Your task to perform on an android device: turn off notifications settings in the gmail app Image 0: 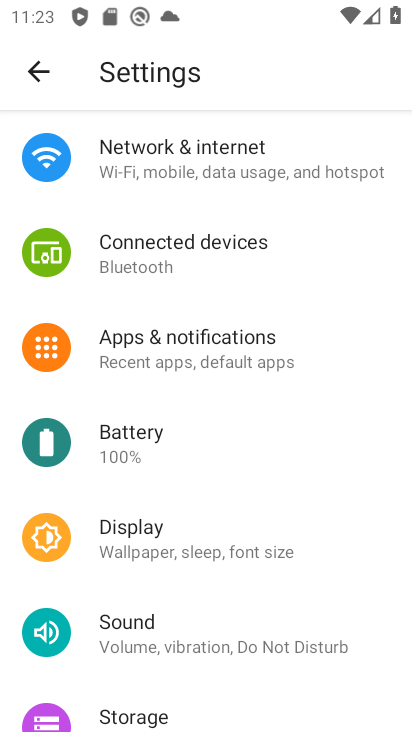
Step 0: press home button
Your task to perform on an android device: turn off notifications settings in the gmail app Image 1: 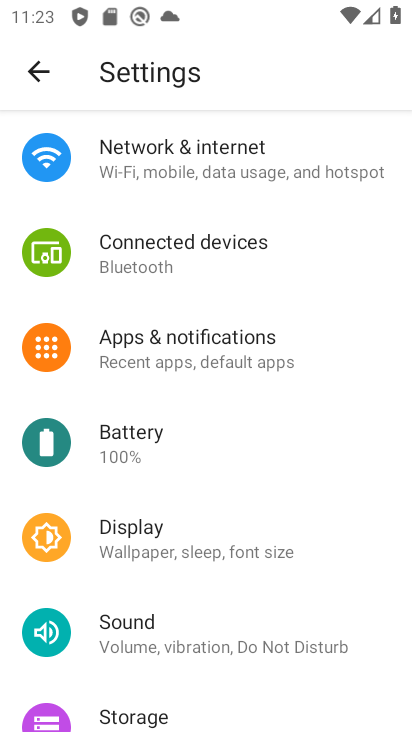
Step 1: press home button
Your task to perform on an android device: turn off notifications settings in the gmail app Image 2: 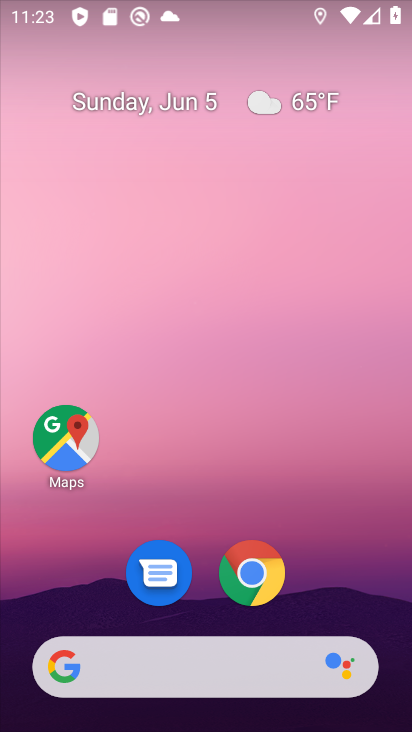
Step 2: drag from (212, 617) to (253, 1)
Your task to perform on an android device: turn off notifications settings in the gmail app Image 3: 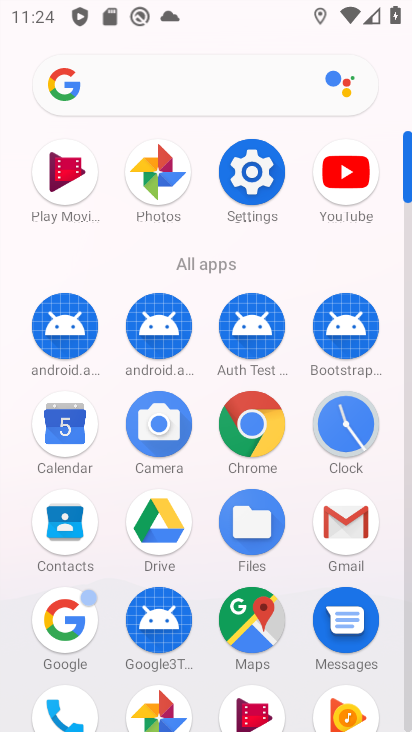
Step 3: click (347, 525)
Your task to perform on an android device: turn off notifications settings in the gmail app Image 4: 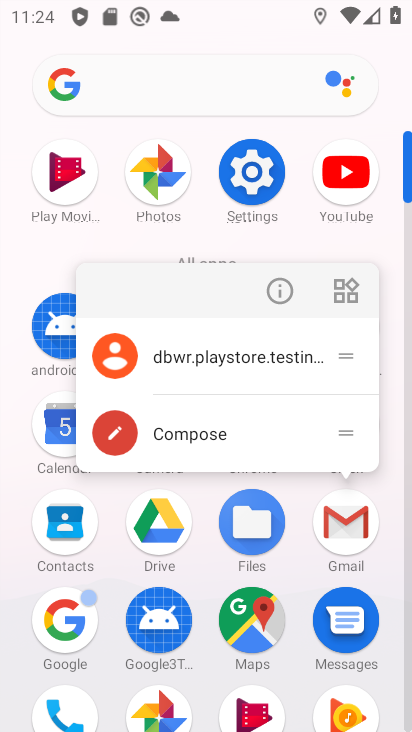
Step 4: click (347, 525)
Your task to perform on an android device: turn off notifications settings in the gmail app Image 5: 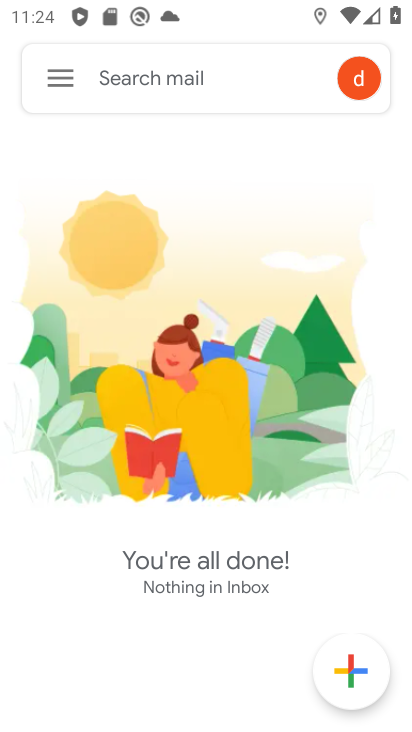
Step 5: click (63, 68)
Your task to perform on an android device: turn off notifications settings in the gmail app Image 6: 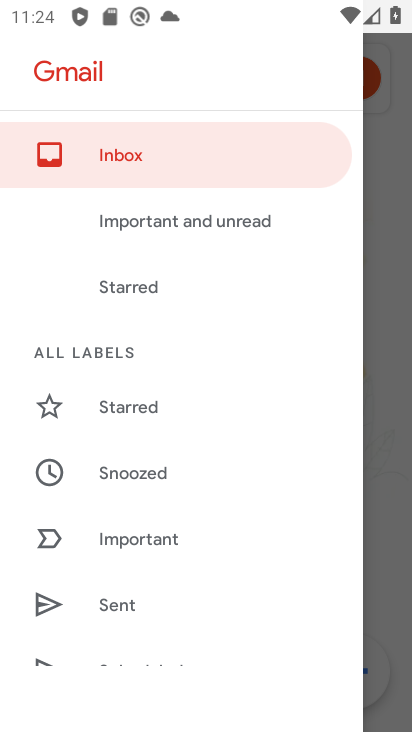
Step 6: drag from (169, 652) to (220, 97)
Your task to perform on an android device: turn off notifications settings in the gmail app Image 7: 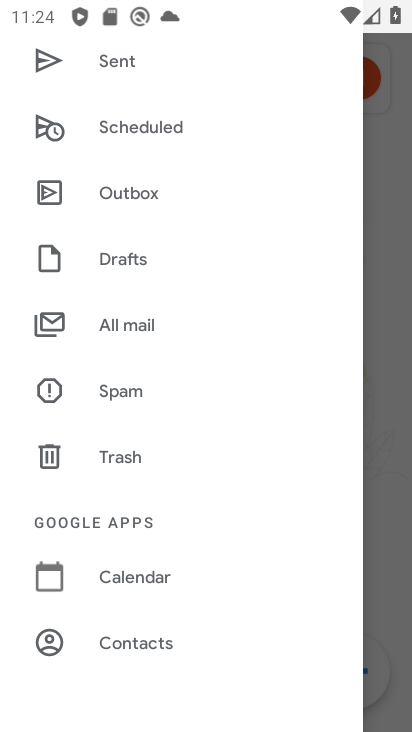
Step 7: drag from (192, 630) to (214, 73)
Your task to perform on an android device: turn off notifications settings in the gmail app Image 8: 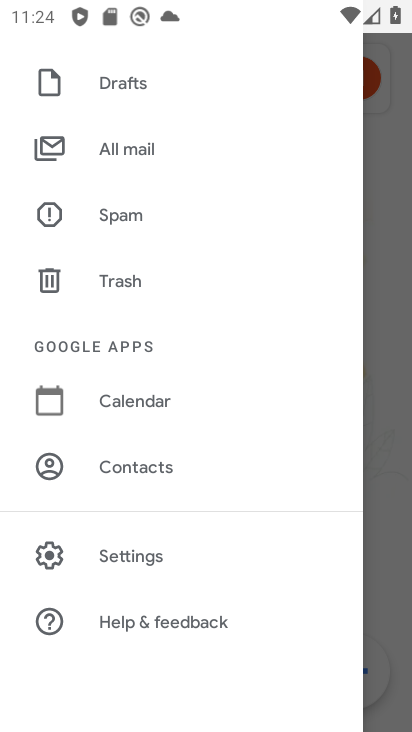
Step 8: click (164, 544)
Your task to perform on an android device: turn off notifications settings in the gmail app Image 9: 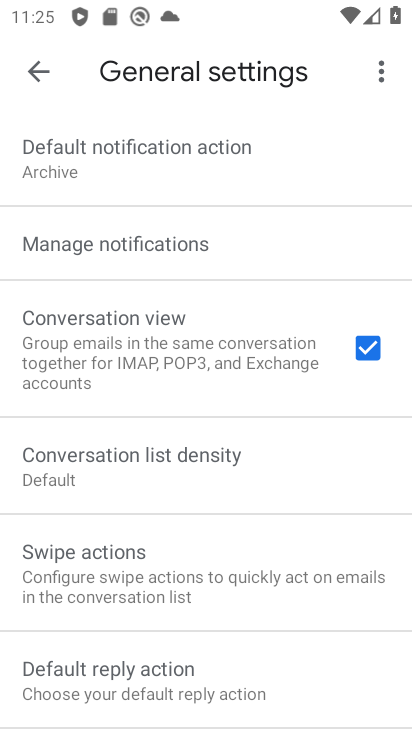
Step 9: click (154, 253)
Your task to perform on an android device: turn off notifications settings in the gmail app Image 10: 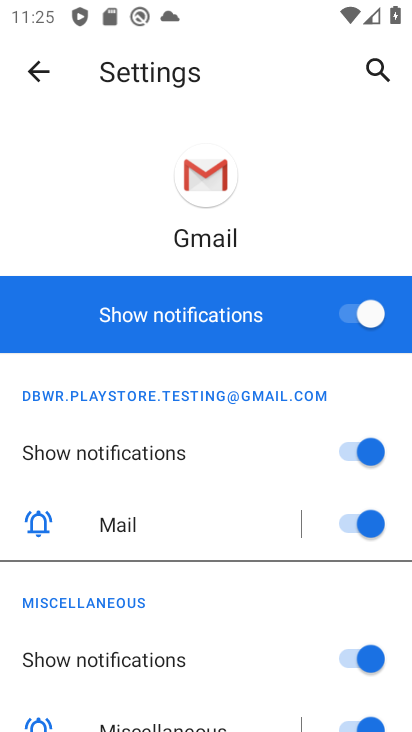
Step 10: click (354, 321)
Your task to perform on an android device: turn off notifications settings in the gmail app Image 11: 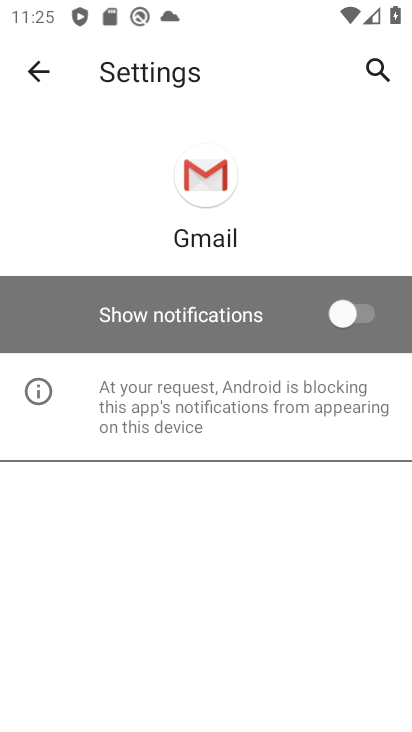
Step 11: task complete